Your task to perform on an android device: Open my contact list Image 0: 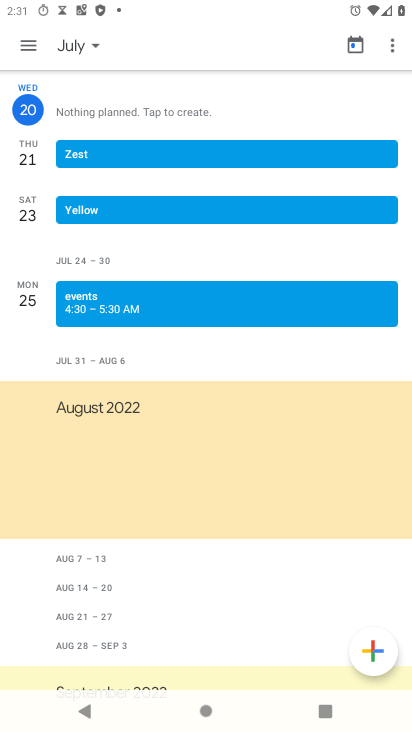
Step 0: press home button
Your task to perform on an android device: Open my contact list Image 1: 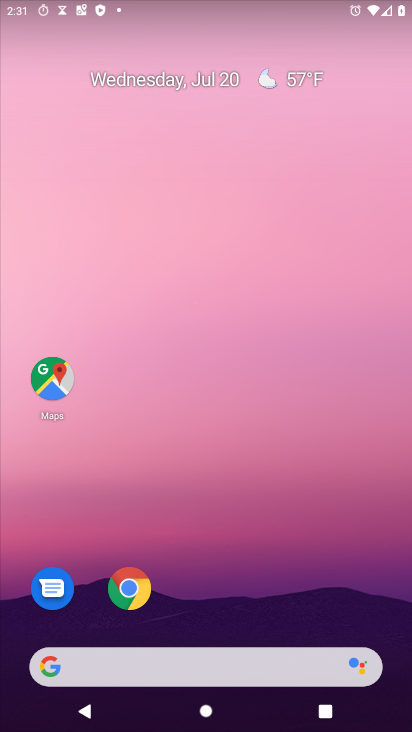
Step 1: drag from (311, 675) to (378, 12)
Your task to perform on an android device: Open my contact list Image 2: 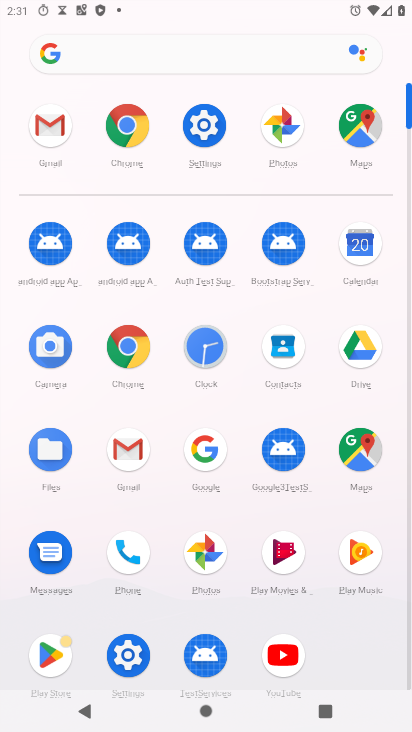
Step 2: click (287, 358)
Your task to perform on an android device: Open my contact list Image 3: 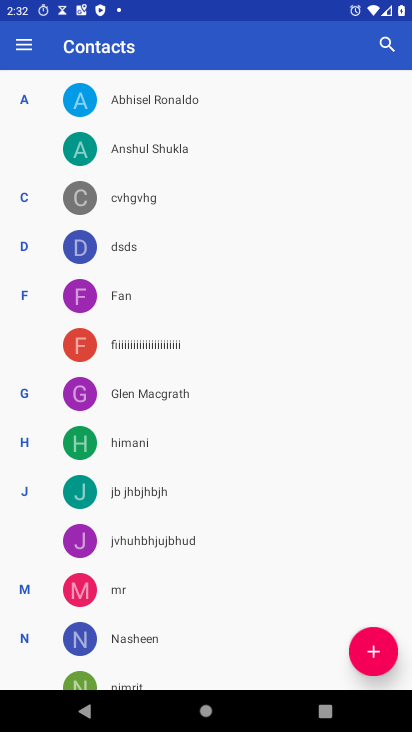
Step 3: click (378, 650)
Your task to perform on an android device: Open my contact list Image 4: 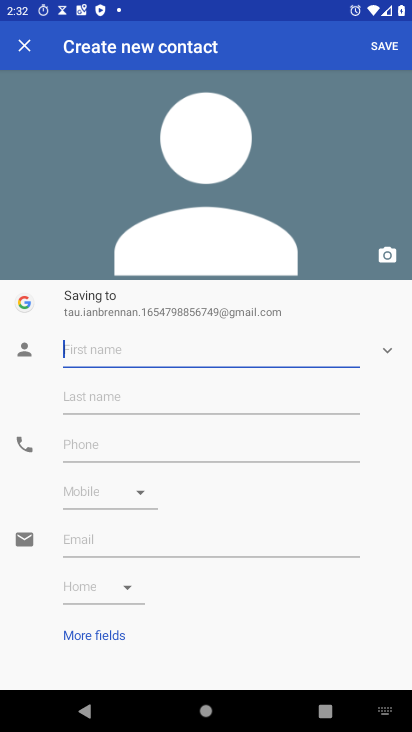
Step 4: type "pragya"
Your task to perform on an android device: Open my contact list Image 5: 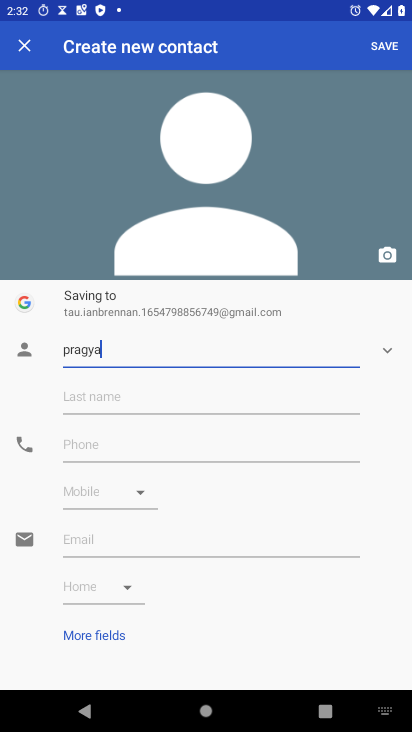
Step 5: click (201, 454)
Your task to perform on an android device: Open my contact list Image 6: 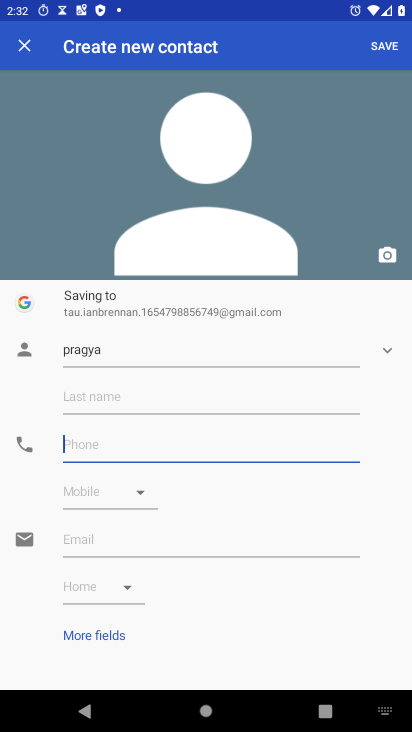
Step 6: type "9878678987"
Your task to perform on an android device: Open my contact list Image 7: 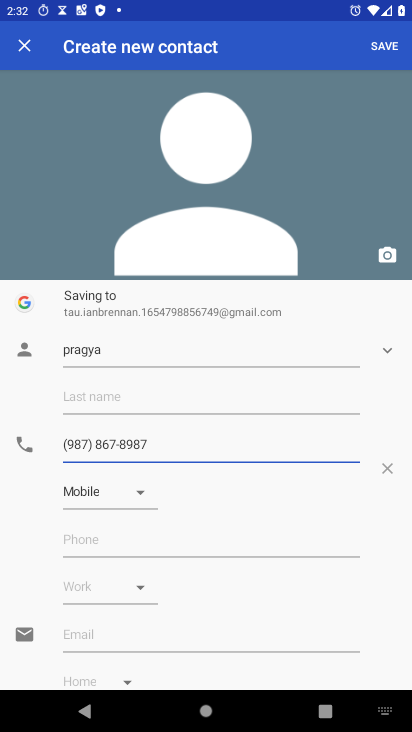
Step 7: click (390, 41)
Your task to perform on an android device: Open my contact list Image 8: 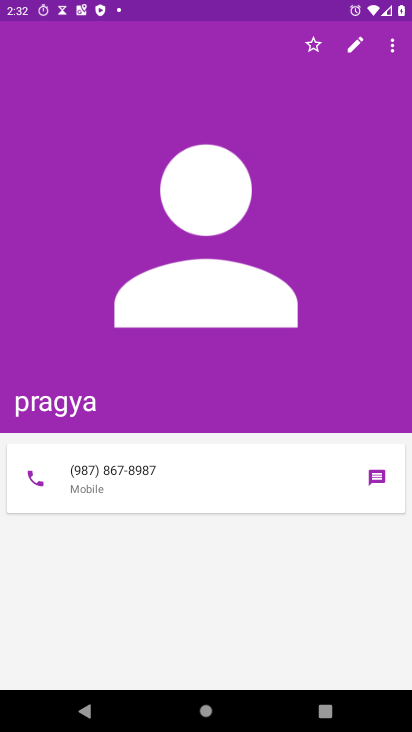
Step 8: task complete